Your task to perform on an android device: Open accessibility settings Image 0: 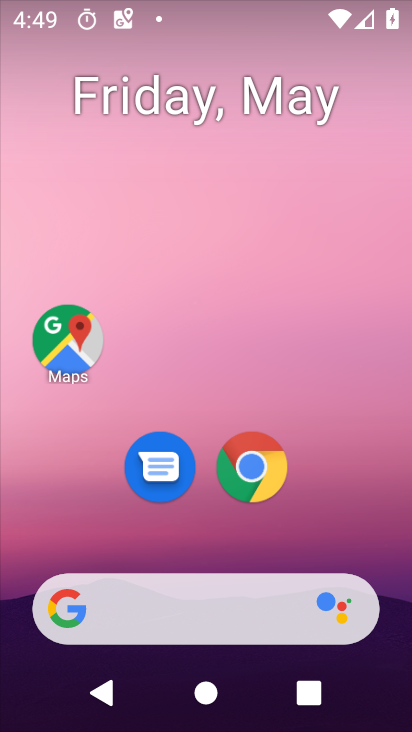
Step 0: drag from (348, 358) to (341, 65)
Your task to perform on an android device: Open accessibility settings Image 1: 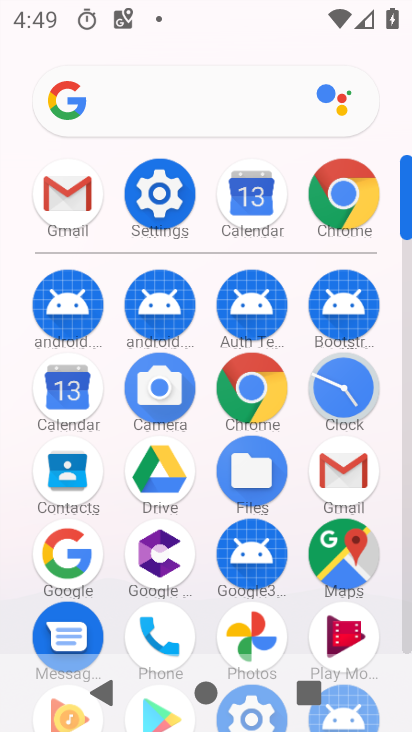
Step 1: click (177, 193)
Your task to perform on an android device: Open accessibility settings Image 2: 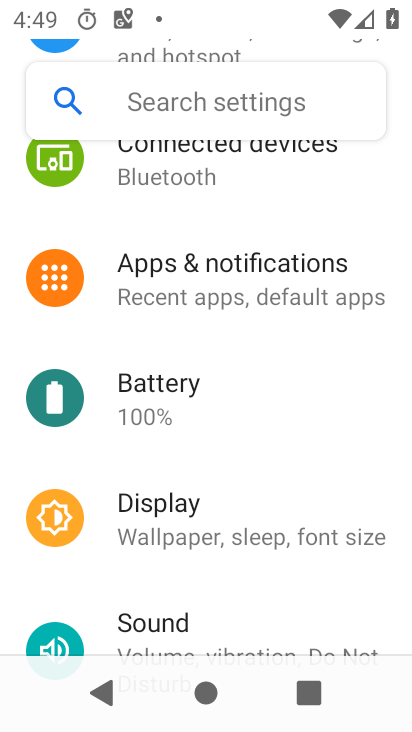
Step 2: drag from (321, 584) to (326, 61)
Your task to perform on an android device: Open accessibility settings Image 3: 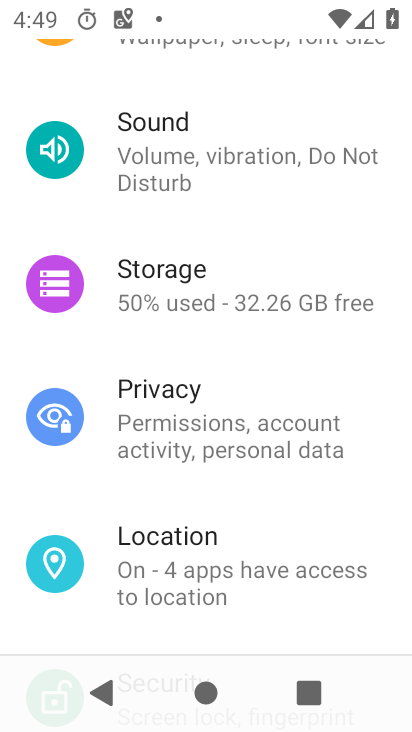
Step 3: drag from (239, 548) to (266, 77)
Your task to perform on an android device: Open accessibility settings Image 4: 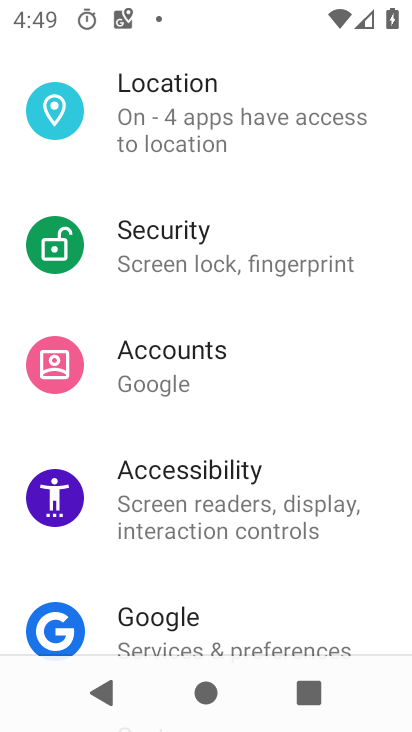
Step 4: click (253, 472)
Your task to perform on an android device: Open accessibility settings Image 5: 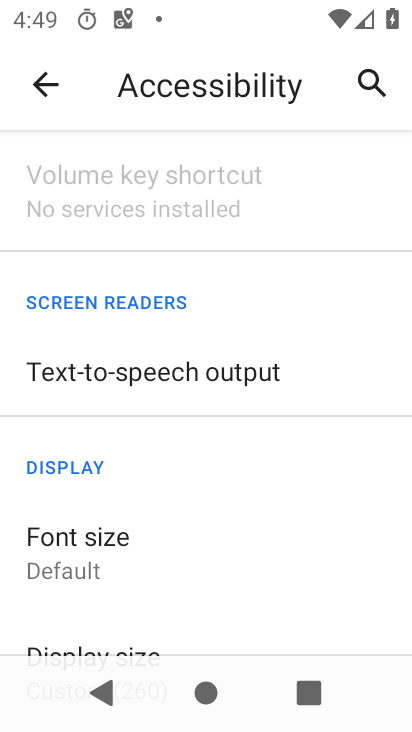
Step 5: task complete